Your task to perform on an android device: Open settings Image 0: 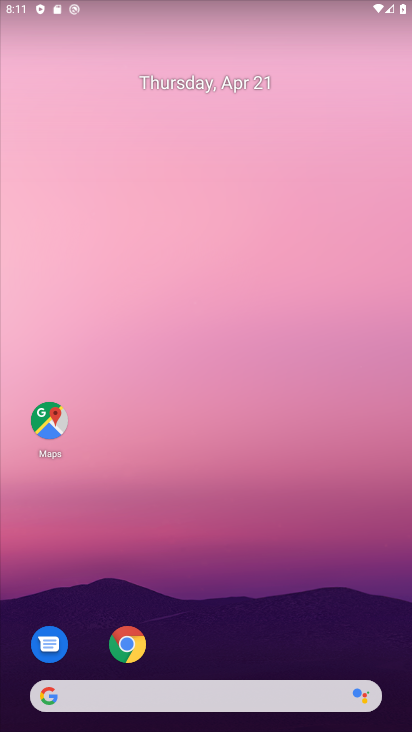
Step 0: drag from (319, 591) to (323, 9)
Your task to perform on an android device: Open settings Image 1: 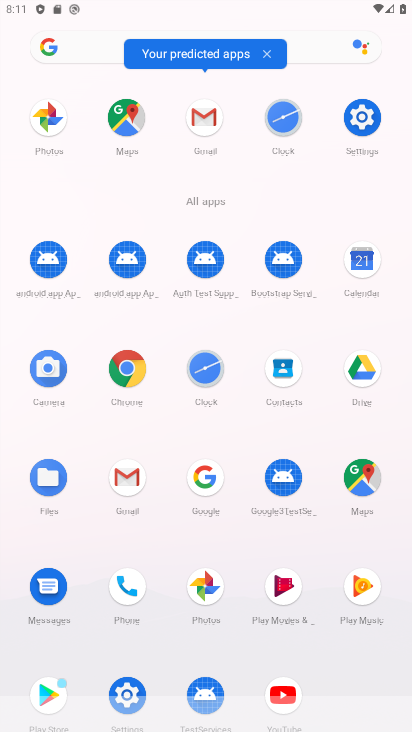
Step 1: click (364, 114)
Your task to perform on an android device: Open settings Image 2: 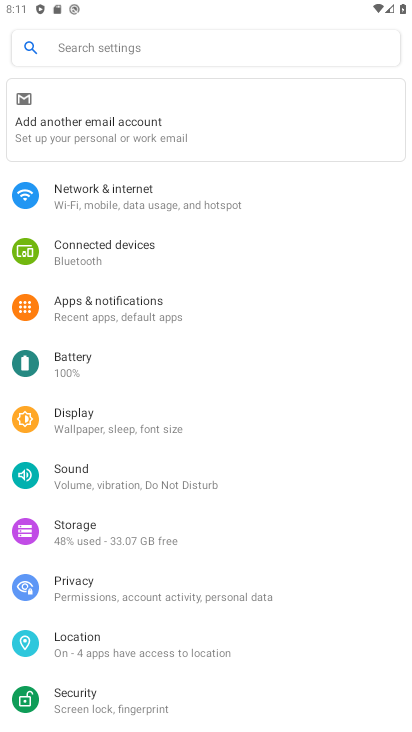
Step 2: task complete